Your task to perform on an android device: turn off data saver in the chrome app Image 0: 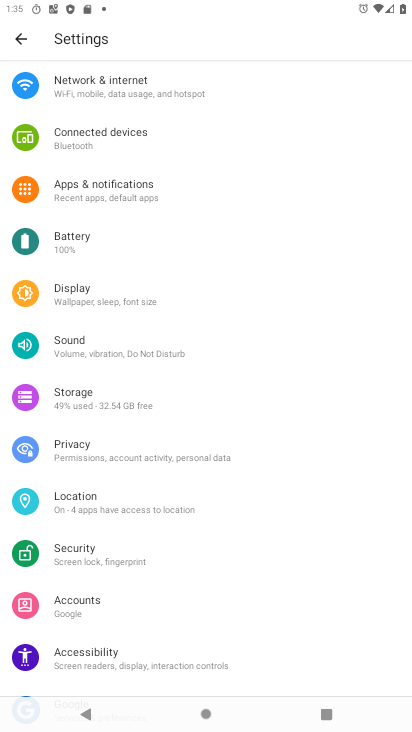
Step 0: press home button
Your task to perform on an android device: turn off data saver in the chrome app Image 1: 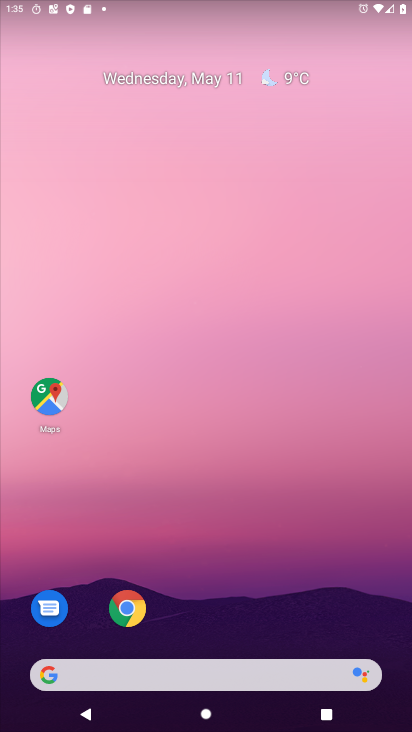
Step 1: drag from (241, 669) to (272, 30)
Your task to perform on an android device: turn off data saver in the chrome app Image 2: 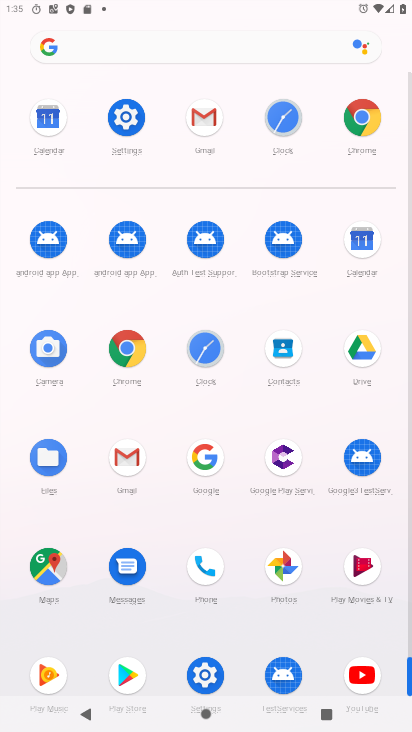
Step 2: click (364, 138)
Your task to perform on an android device: turn off data saver in the chrome app Image 3: 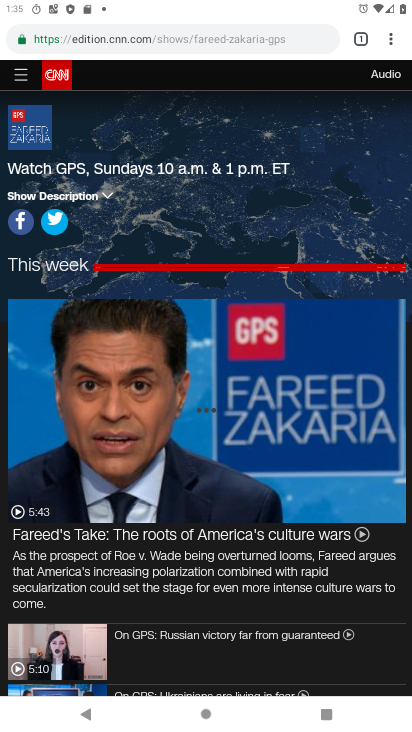
Step 3: click (390, 31)
Your task to perform on an android device: turn off data saver in the chrome app Image 4: 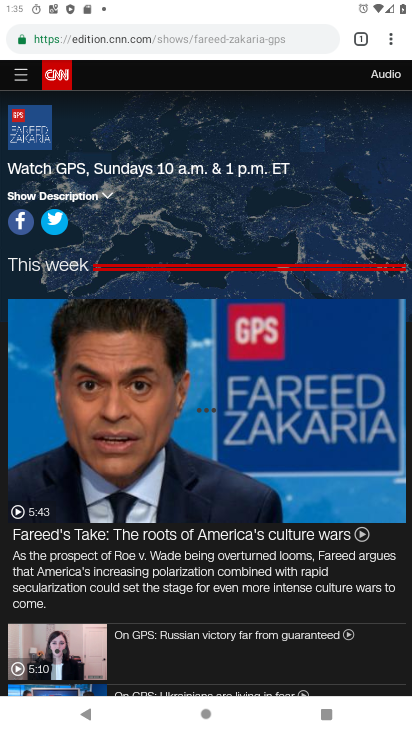
Step 4: click (396, 44)
Your task to perform on an android device: turn off data saver in the chrome app Image 5: 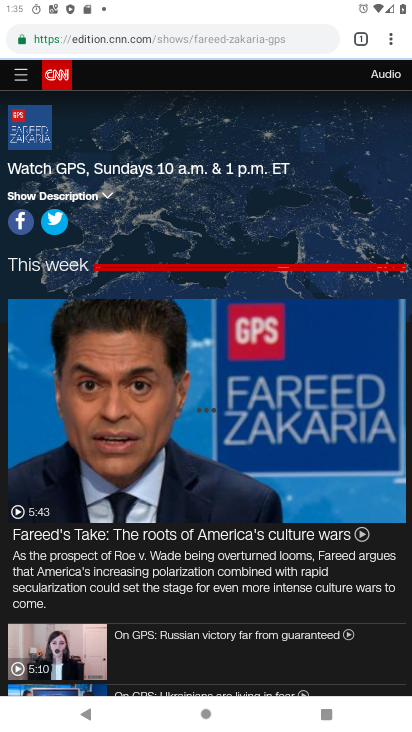
Step 5: click (395, 44)
Your task to perform on an android device: turn off data saver in the chrome app Image 6: 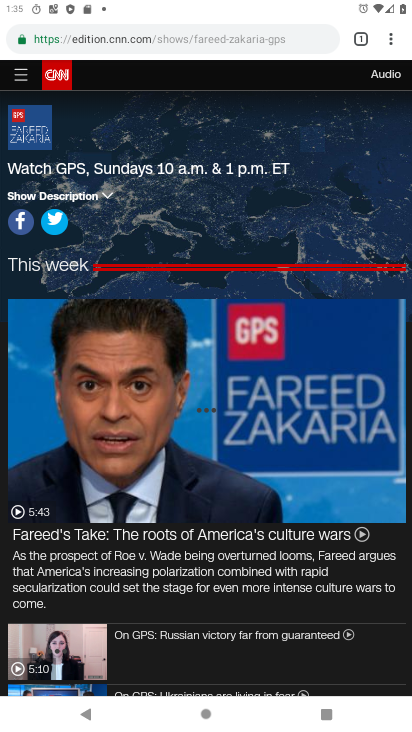
Step 6: click (394, 44)
Your task to perform on an android device: turn off data saver in the chrome app Image 7: 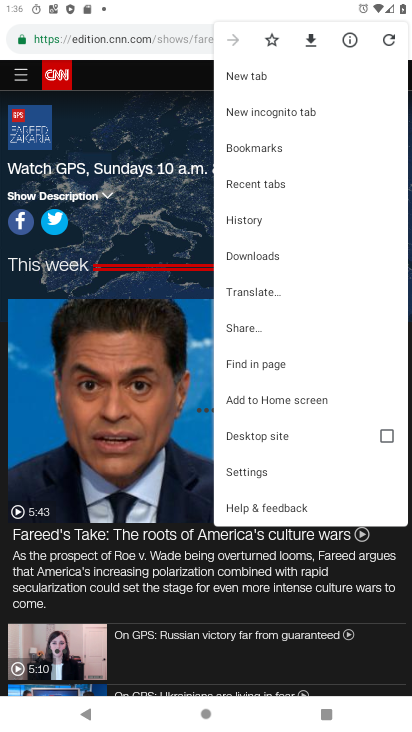
Step 7: click (284, 459)
Your task to perform on an android device: turn off data saver in the chrome app Image 8: 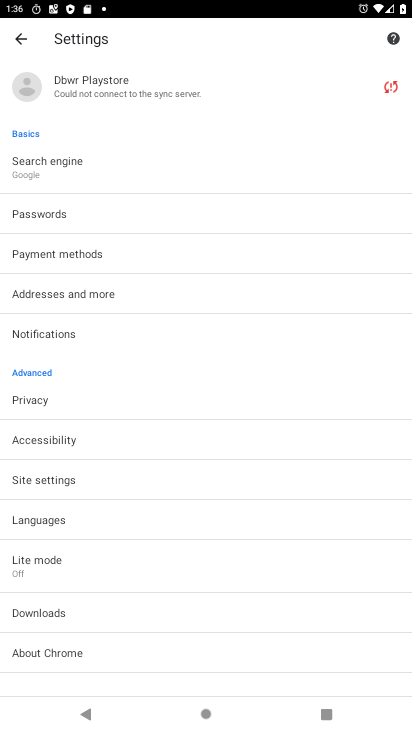
Step 8: drag from (125, 555) to (175, 300)
Your task to perform on an android device: turn off data saver in the chrome app Image 9: 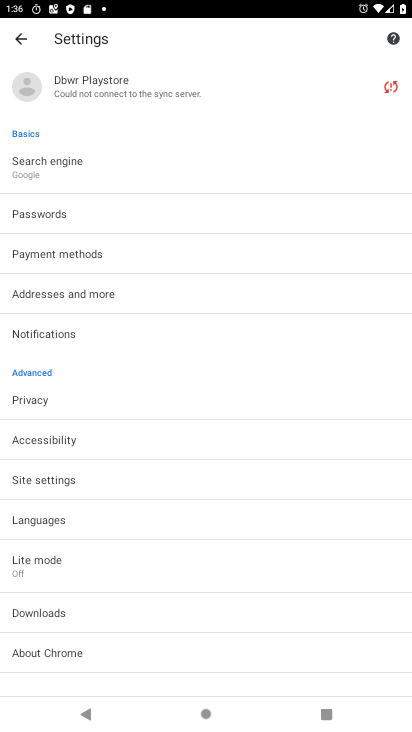
Step 9: click (130, 570)
Your task to perform on an android device: turn off data saver in the chrome app Image 10: 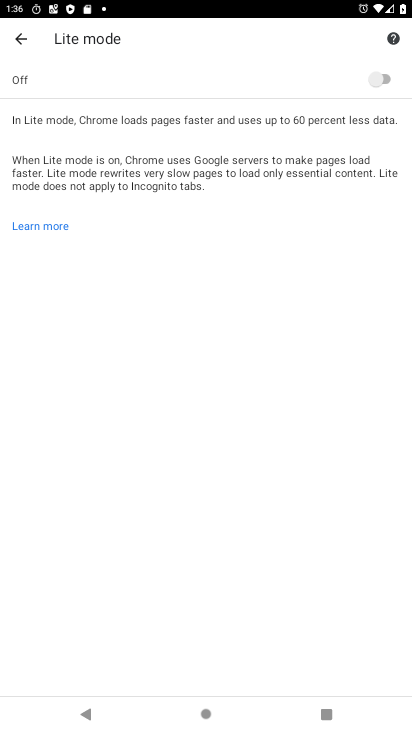
Step 10: task complete